Your task to perform on an android device: install app "NewsBreak: Local News & Alerts" Image 0: 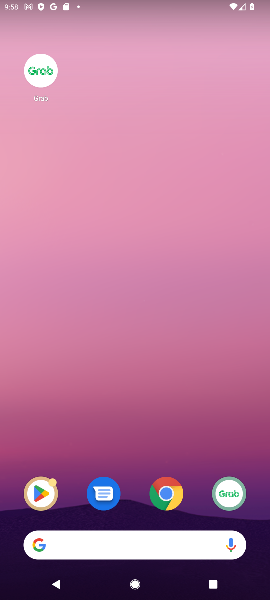
Step 0: click (41, 506)
Your task to perform on an android device: install app "NewsBreak: Local News & Alerts" Image 1: 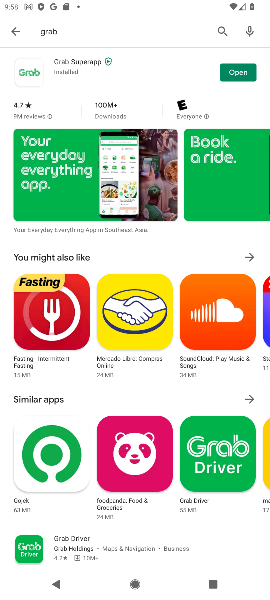
Step 1: click (214, 37)
Your task to perform on an android device: install app "NewsBreak: Local News & Alerts" Image 2: 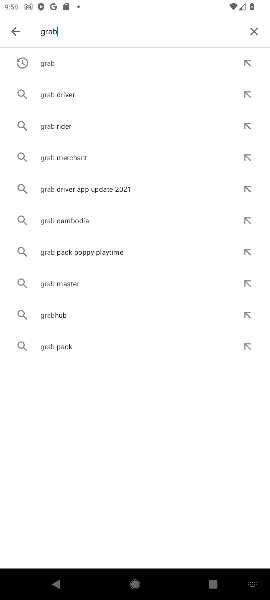
Step 2: click (250, 38)
Your task to perform on an android device: install app "NewsBreak: Local News & Alerts" Image 3: 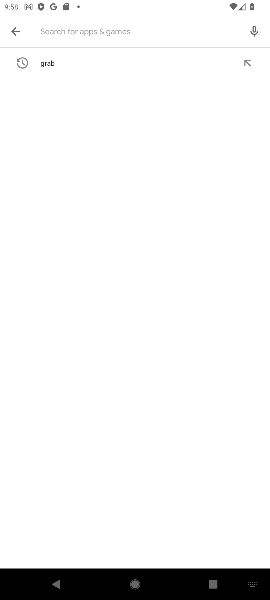
Step 3: type "newbreak"
Your task to perform on an android device: install app "NewsBreak: Local News & Alerts" Image 4: 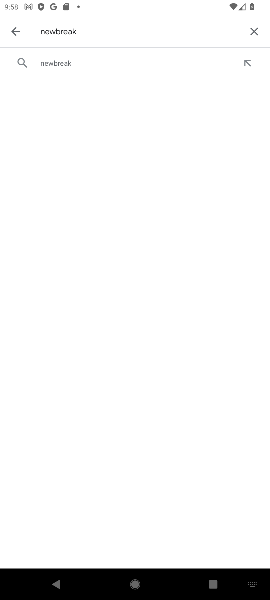
Step 4: click (92, 77)
Your task to perform on an android device: install app "NewsBreak: Local News & Alerts" Image 5: 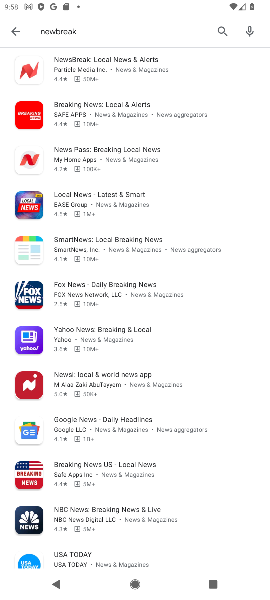
Step 5: click (168, 80)
Your task to perform on an android device: install app "NewsBreak: Local News & Alerts" Image 6: 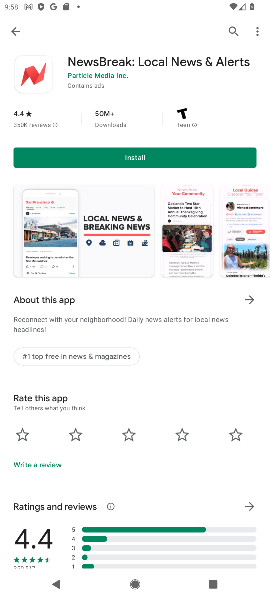
Step 6: click (203, 147)
Your task to perform on an android device: install app "NewsBreak: Local News & Alerts" Image 7: 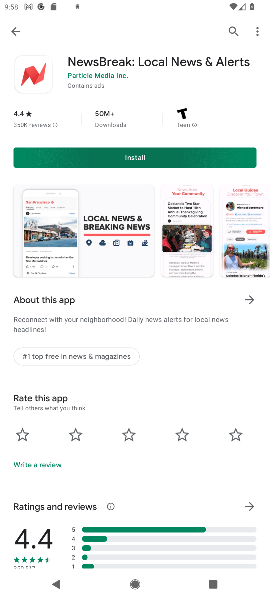
Step 7: task complete